Your task to perform on an android device: turn off notifications in google photos Image 0: 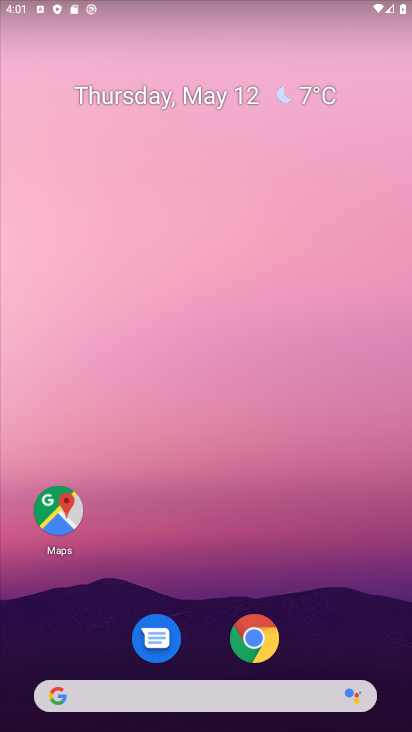
Step 0: drag from (323, 604) to (247, 75)
Your task to perform on an android device: turn off notifications in google photos Image 1: 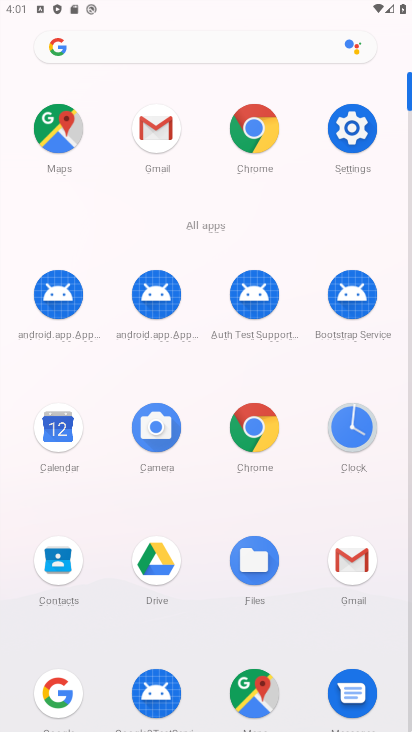
Step 1: drag from (303, 640) to (259, 260)
Your task to perform on an android device: turn off notifications in google photos Image 2: 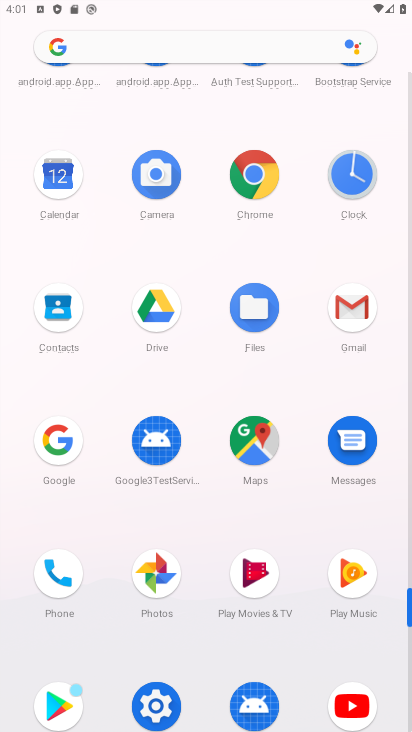
Step 2: click (153, 577)
Your task to perform on an android device: turn off notifications in google photos Image 3: 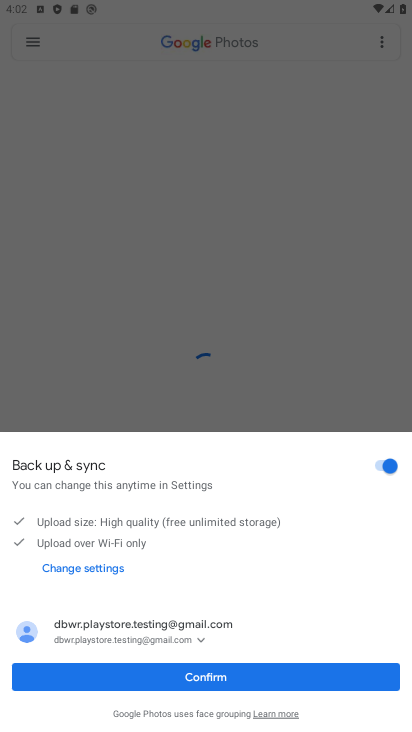
Step 3: click (266, 674)
Your task to perform on an android device: turn off notifications in google photos Image 4: 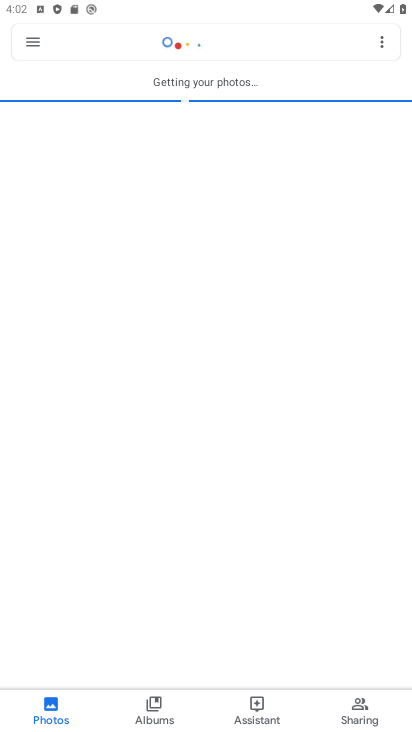
Step 4: click (35, 39)
Your task to perform on an android device: turn off notifications in google photos Image 5: 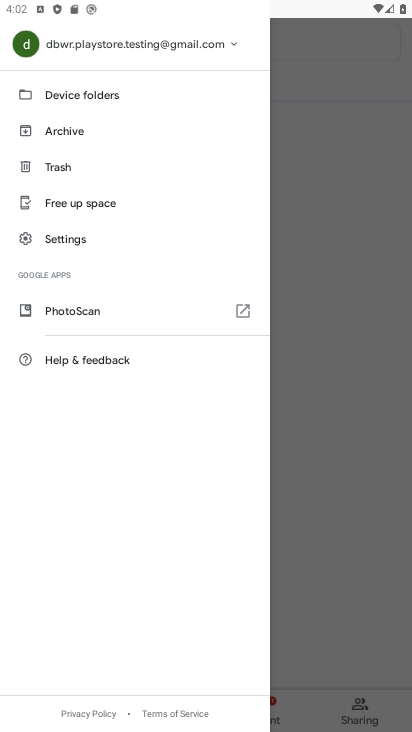
Step 5: click (84, 241)
Your task to perform on an android device: turn off notifications in google photos Image 6: 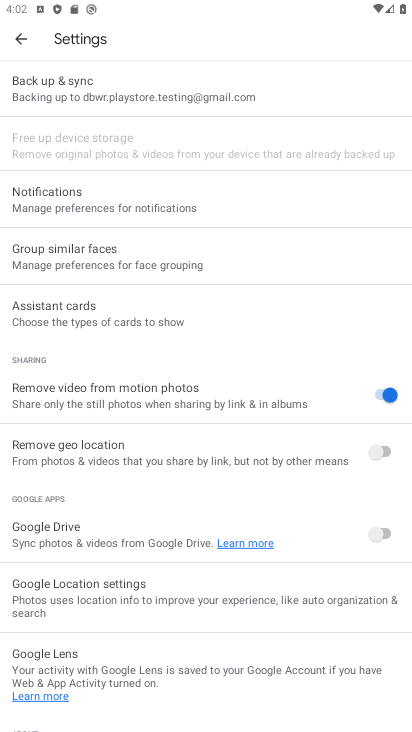
Step 6: click (118, 202)
Your task to perform on an android device: turn off notifications in google photos Image 7: 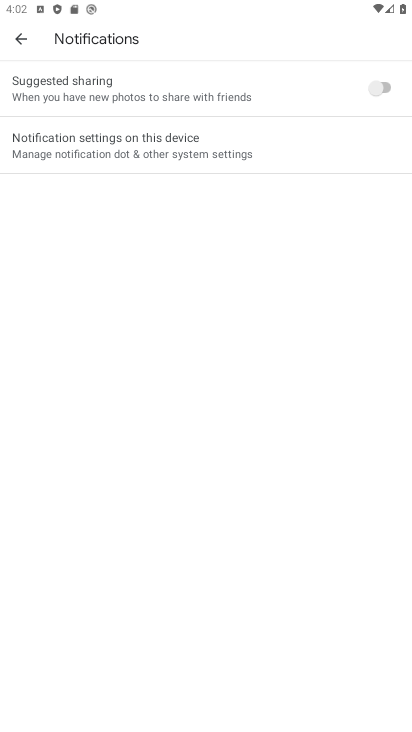
Step 7: task complete